Your task to perform on an android device: toggle airplane mode Image 0: 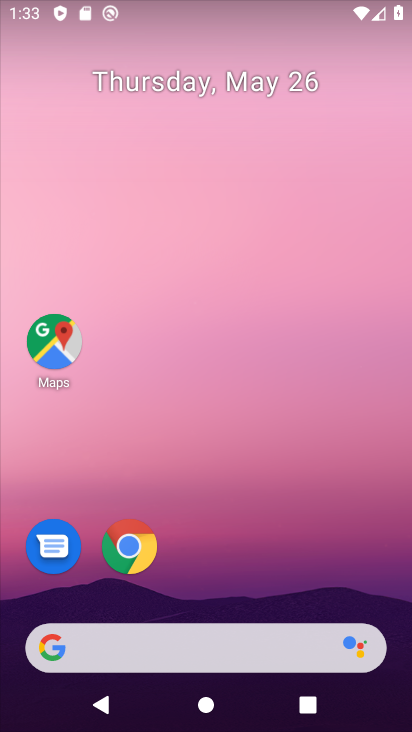
Step 0: drag from (217, 546) to (250, 108)
Your task to perform on an android device: toggle airplane mode Image 1: 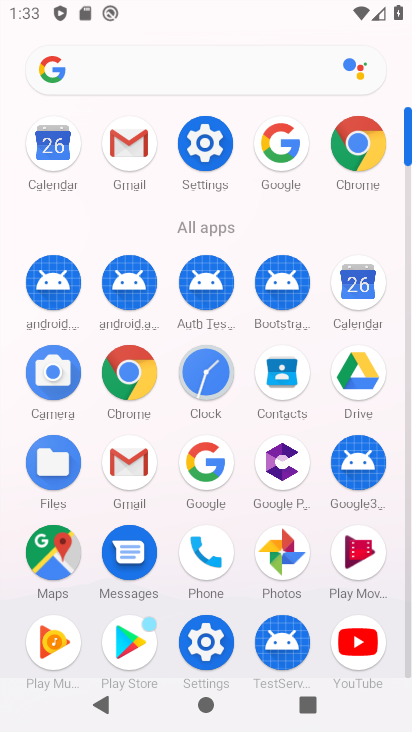
Step 1: click (205, 139)
Your task to perform on an android device: toggle airplane mode Image 2: 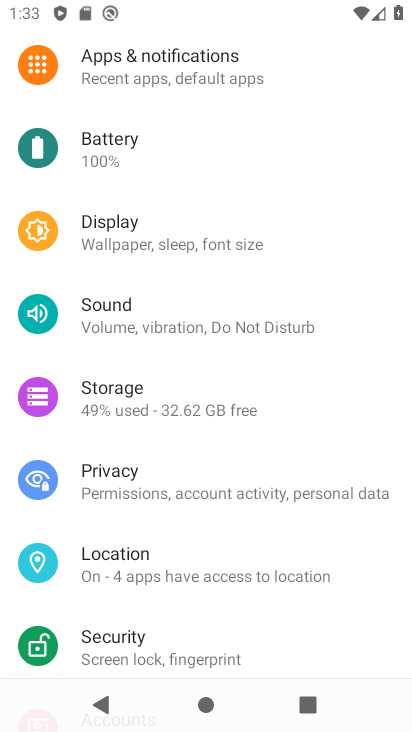
Step 2: drag from (191, 123) to (266, 512)
Your task to perform on an android device: toggle airplane mode Image 3: 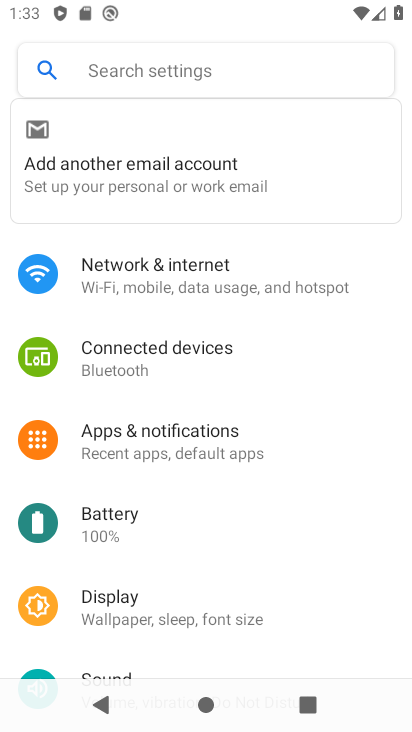
Step 3: click (157, 270)
Your task to perform on an android device: toggle airplane mode Image 4: 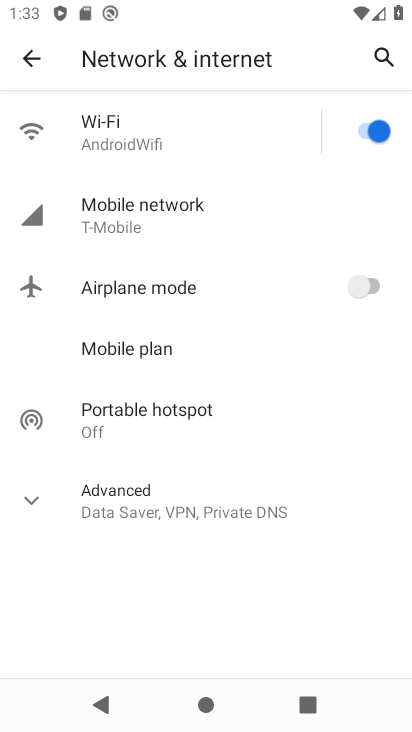
Step 4: click (360, 290)
Your task to perform on an android device: toggle airplane mode Image 5: 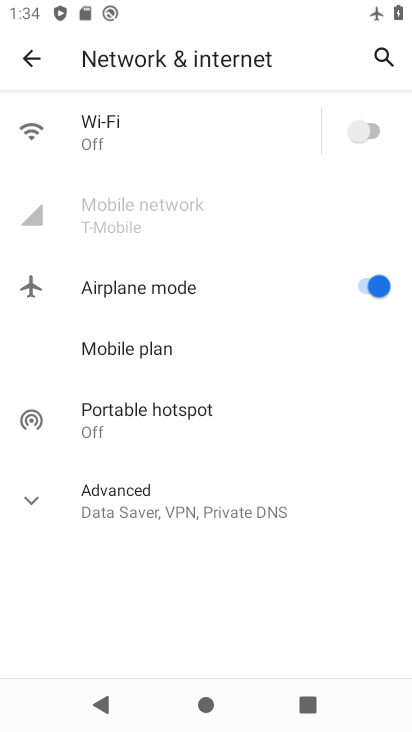
Step 5: task complete